Your task to perform on an android device: Open Amazon Image 0: 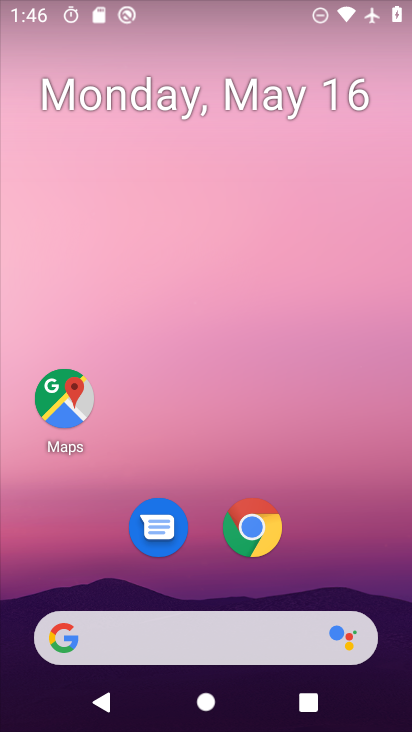
Step 0: press home button
Your task to perform on an android device: Open Amazon Image 1: 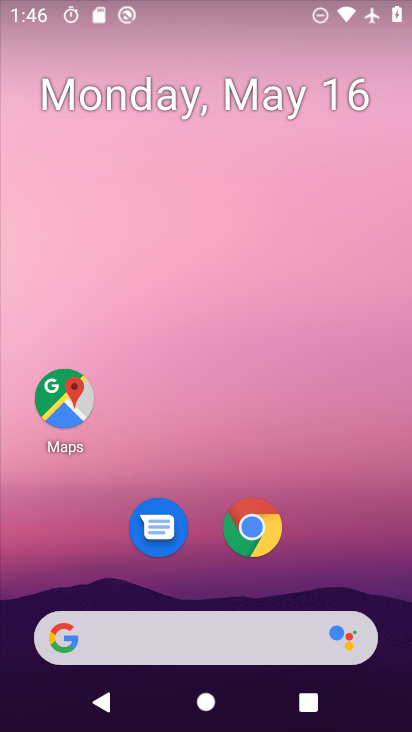
Step 1: click (262, 525)
Your task to perform on an android device: Open Amazon Image 2: 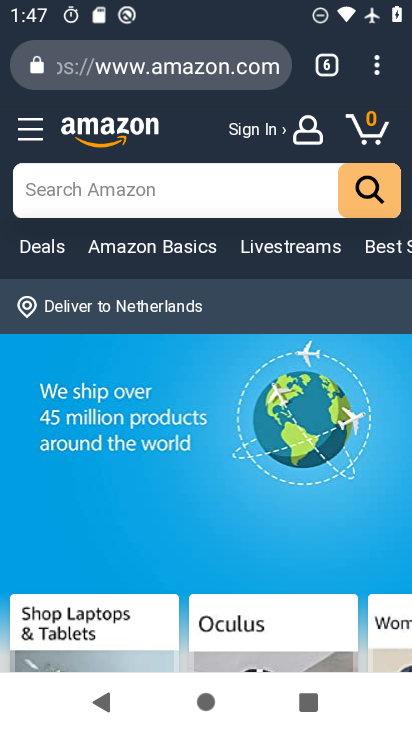
Step 2: task complete